Your task to perform on an android device: See recent photos Image 0: 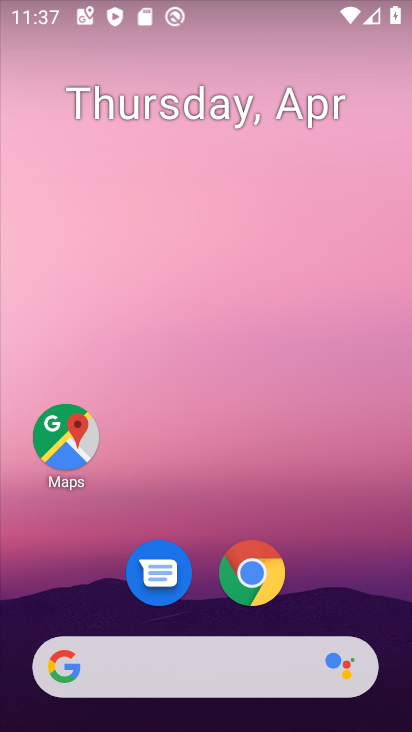
Step 0: click (280, 115)
Your task to perform on an android device: See recent photos Image 1: 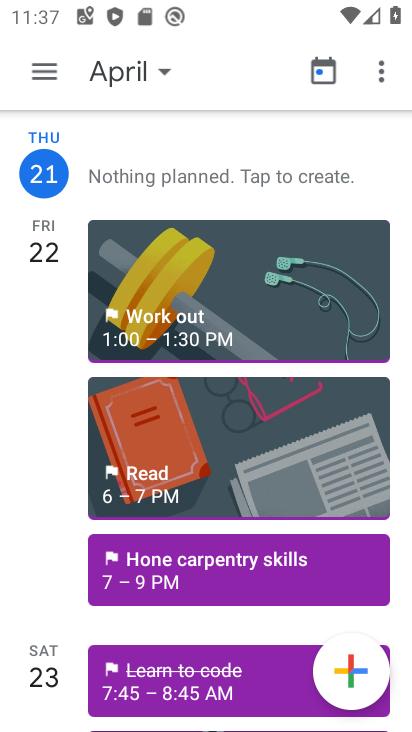
Step 1: press home button
Your task to perform on an android device: See recent photos Image 2: 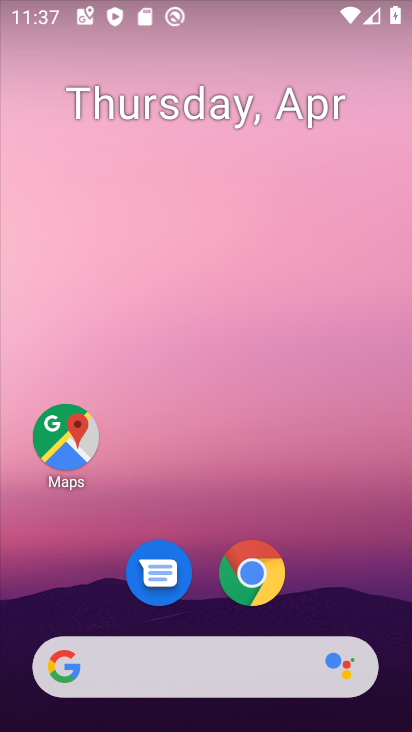
Step 2: drag from (311, 517) to (235, 44)
Your task to perform on an android device: See recent photos Image 3: 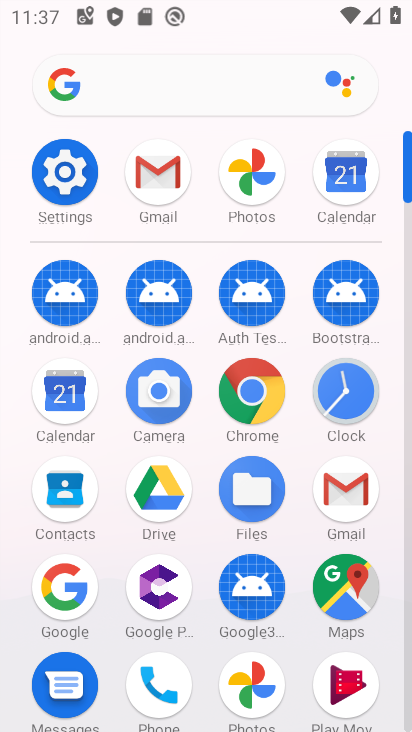
Step 3: click (243, 161)
Your task to perform on an android device: See recent photos Image 4: 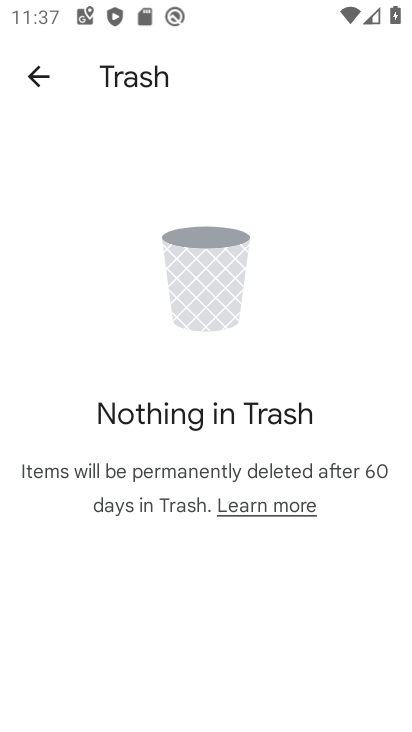
Step 4: click (48, 86)
Your task to perform on an android device: See recent photos Image 5: 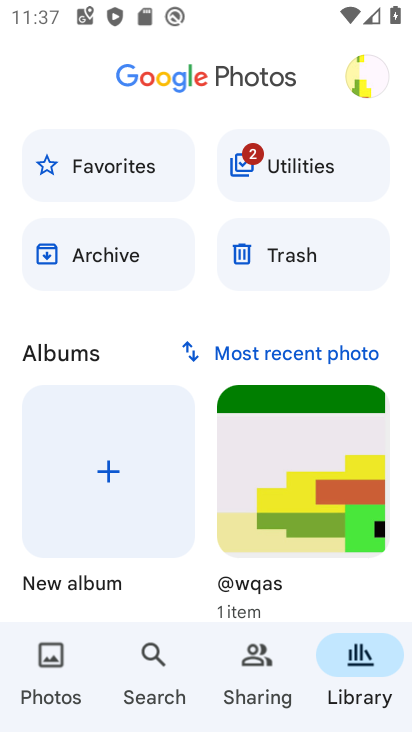
Step 5: click (173, 663)
Your task to perform on an android device: See recent photos Image 6: 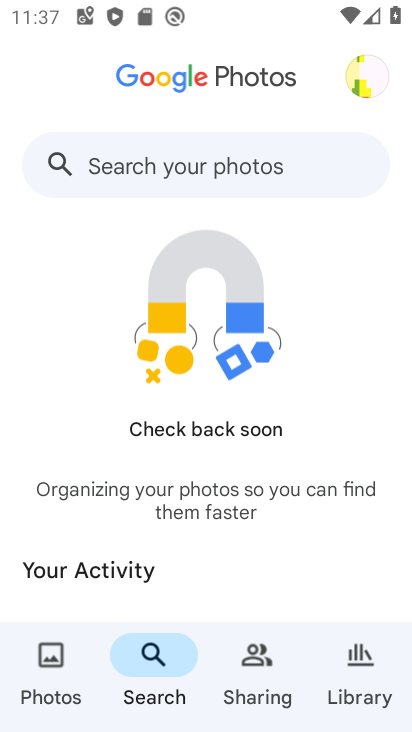
Step 6: drag from (218, 560) to (196, 225)
Your task to perform on an android device: See recent photos Image 7: 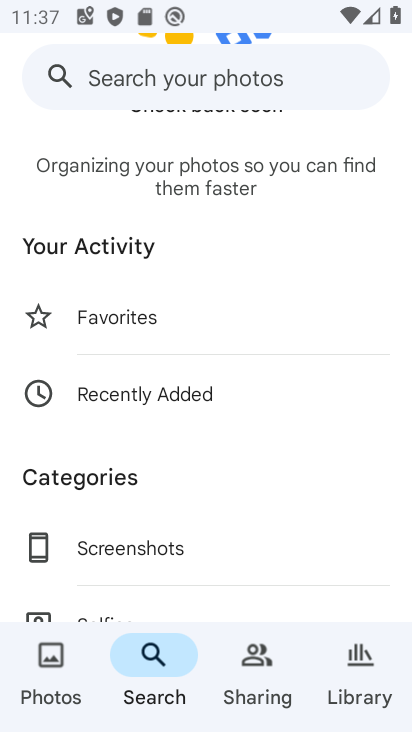
Step 7: click (173, 392)
Your task to perform on an android device: See recent photos Image 8: 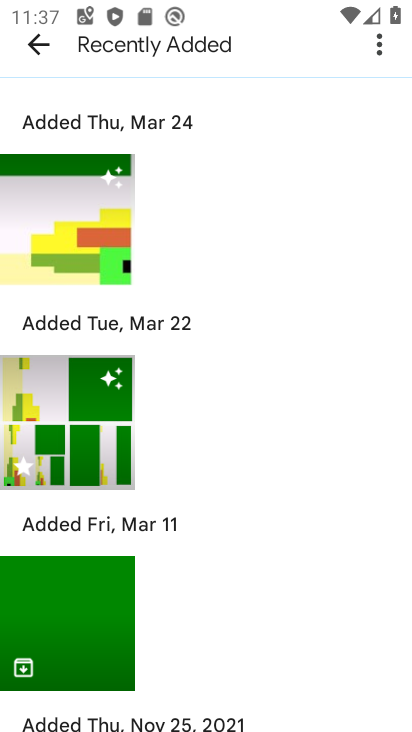
Step 8: task complete